Your task to perform on an android device: turn off priority inbox in the gmail app Image 0: 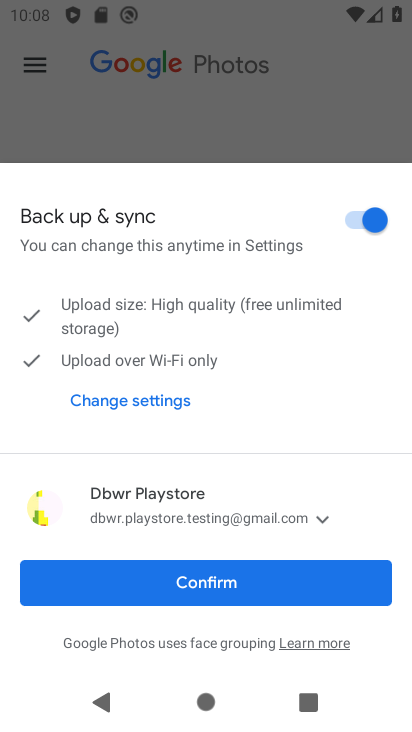
Step 0: press home button
Your task to perform on an android device: turn off priority inbox in the gmail app Image 1: 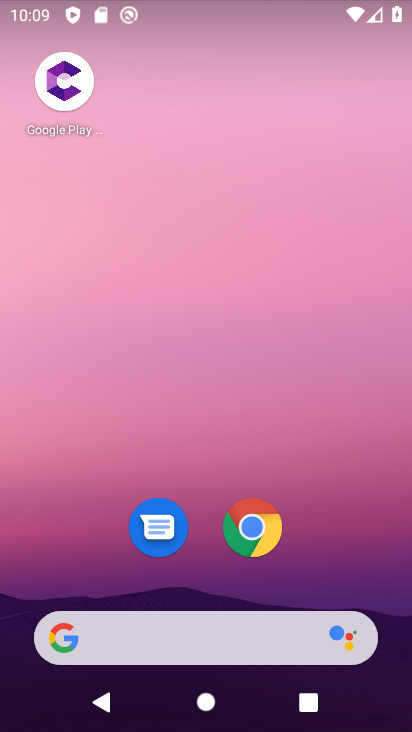
Step 1: drag from (209, 583) to (266, 36)
Your task to perform on an android device: turn off priority inbox in the gmail app Image 2: 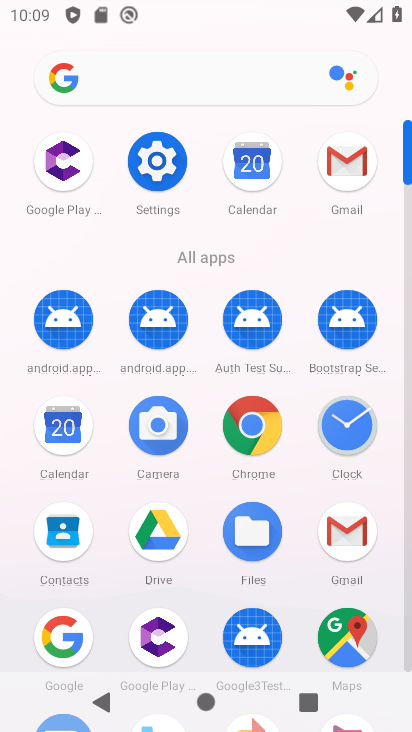
Step 2: click (334, 528)
Your task to perform on an android device: turn off priority inbox in the gmail app Image 3: 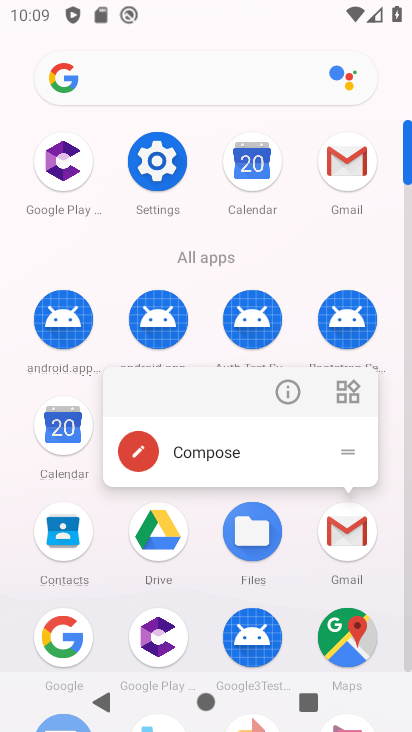
Step 3: click (338, 535)
Your task to perform on an android device: turn off priority inbox in the gmail app Image 4: 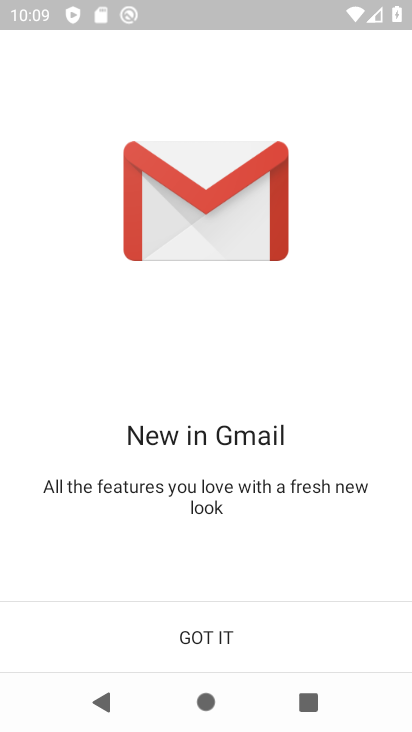
Step 4: click (212, 631)
Your task to perform on an android device: turn off priority inbox in the gmail app Image 5: 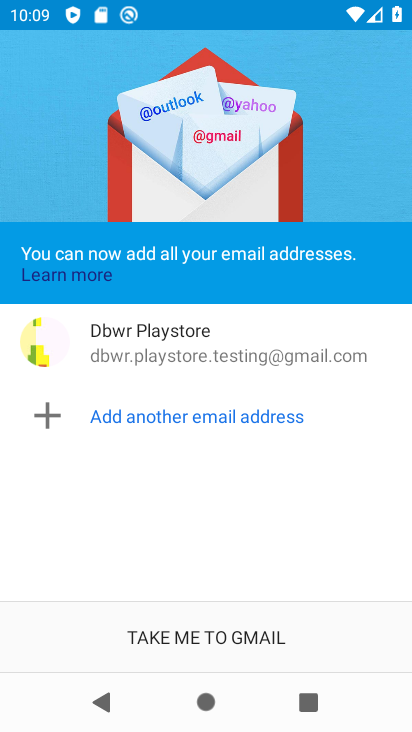
Step 5: click (188, 645)
Your task to perform on an android device: turn off priority inbox in the gmail app Image 6: 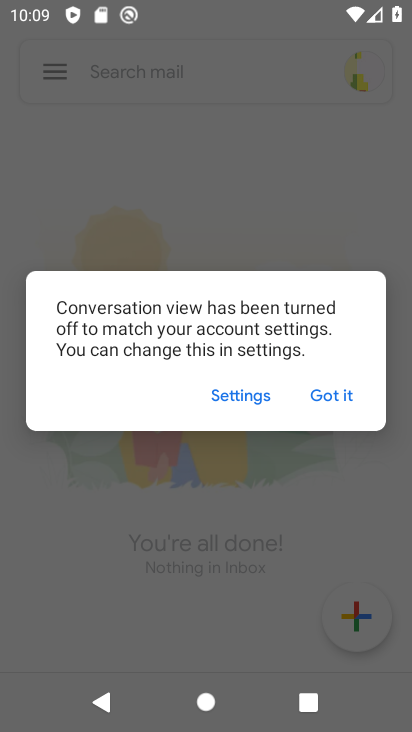
Step 6: click (331, 396)
Your task to perform on an android device: turn off priority inbox in the gmail app Image 7: 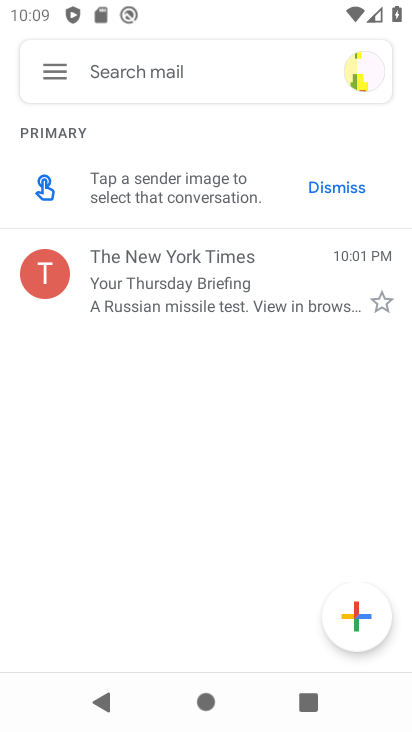
Step 7: click (52, 74)
Your task to perform on an android device: turn off priority inbox in the gmail app Image 8: 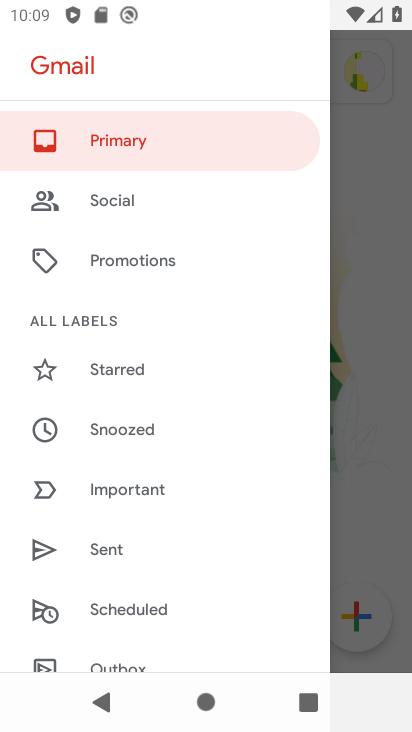
Step 8: drag from (100, 622) to (190, 123)
Your task to perform on an android device: turn off priority inbox in the gmail app Image 9: 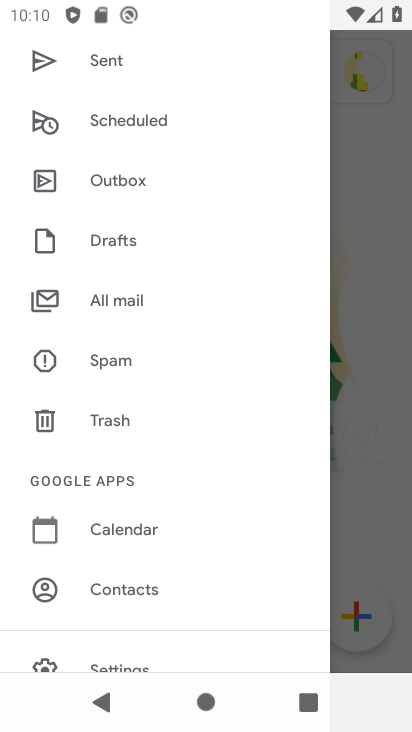
Step 9: drag from (108, 594) to (180, 134)
Your task to perform on an android device: turn off priority inbox in the gmail app Image 10: 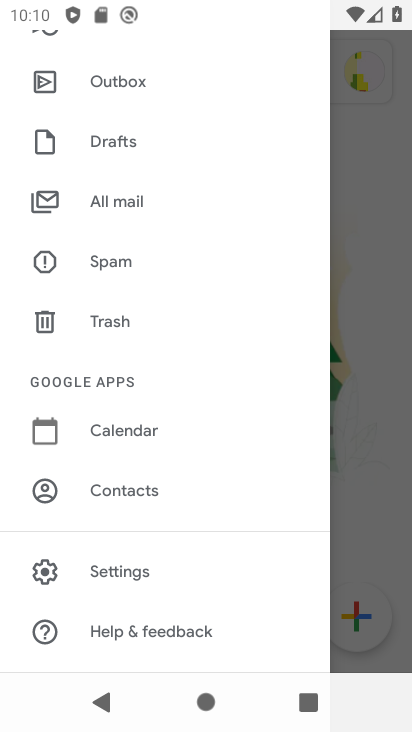
Step 10: click (114, 579)
Your task to perform on an android device: turn off priority inbox in the gmail app Image 11: 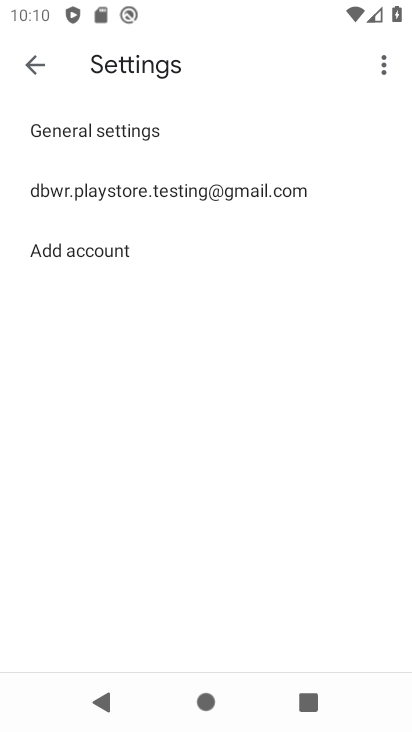
Step 11: click (131, 189)
Your task to perform on an android device: turn off priority inbox in the gmail app Image 12: 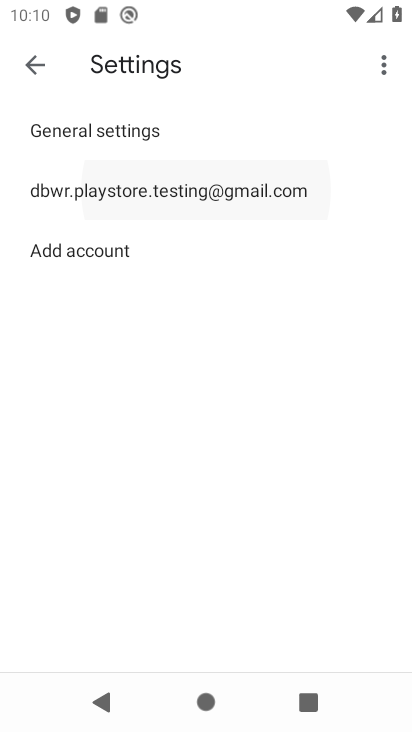
Step 12: click (131, 189)
Your task to perform on an android device: turn off priority inbox in the gmail app Image 13: 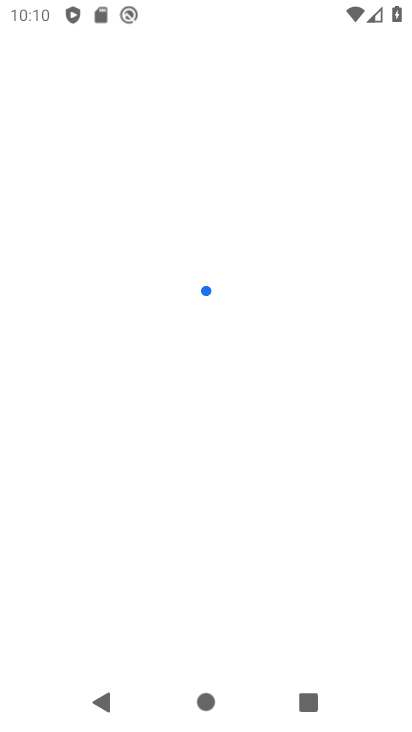
Step 13: press back button
Your task to perform on an android device: turn off priority inbox in the gmail app Image 14: 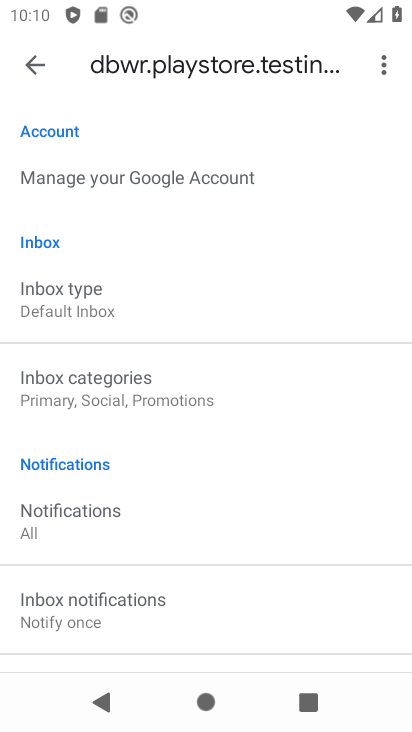
Step 14: click (75, 310)
Your task to perform on an android device: turn off priority inbox in the gmail app Image 15: 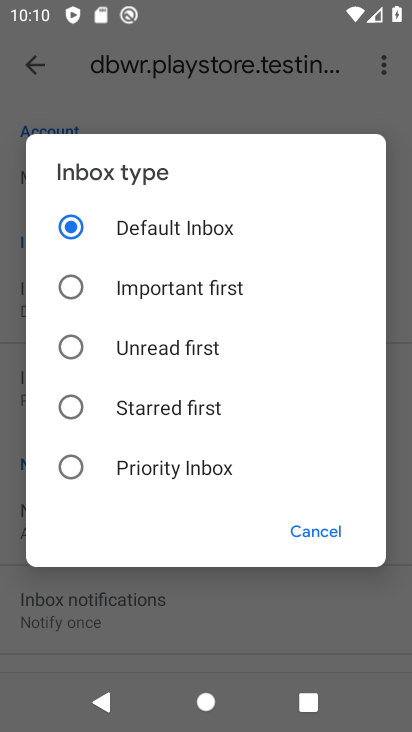
Step 15: click (74, 279)
Your task to perform on an android device: turn off priority inbox in the gmail app Image 16: 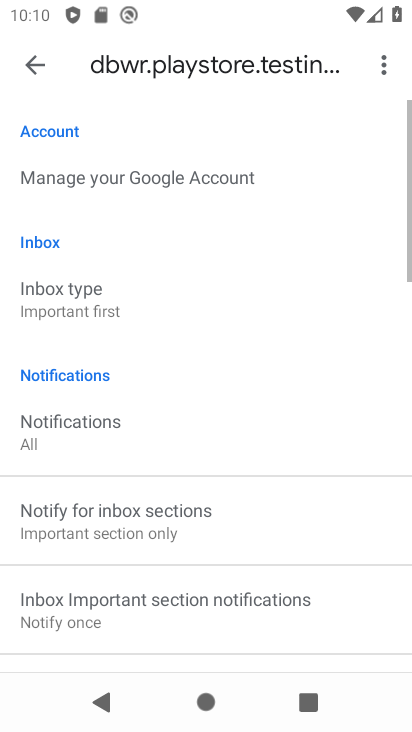
Step 16: task complete